Your task to perform on an android device: Go to ESPN.com Image 0: 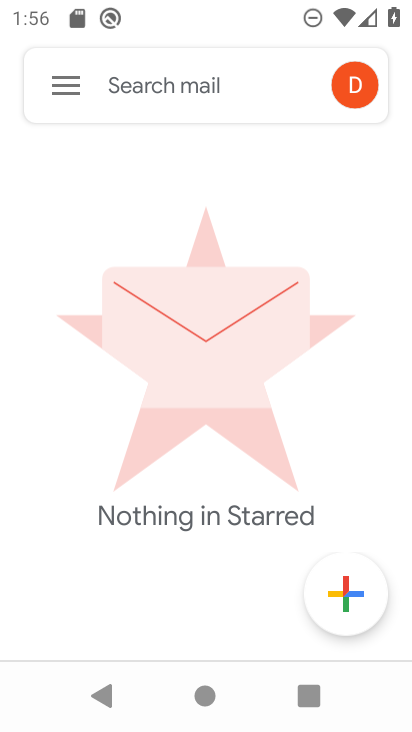
Step 0: press home button
Your task to perform on an android device: Go to ESPN.com Image 1: 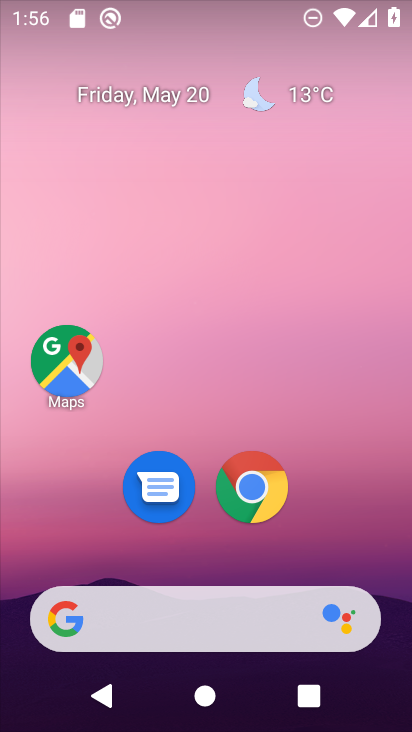
Step 1: click (249, 481)
Your task to perform on an android device: Go to ESPN.com Image 2: 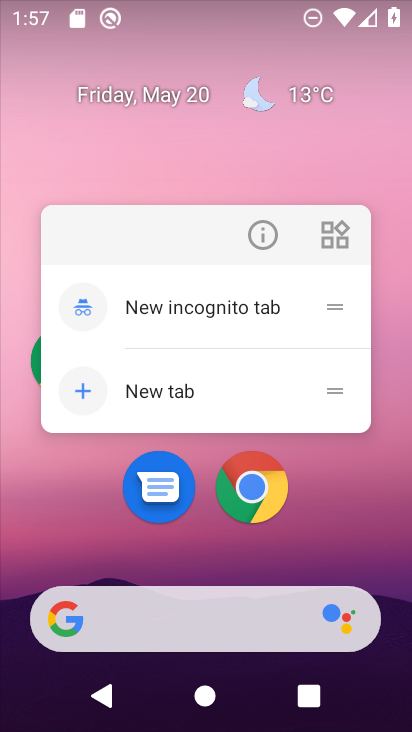
Step 2: click (249, 481)
Your task to perform on an android device: Go to ESPN.com Image 3: 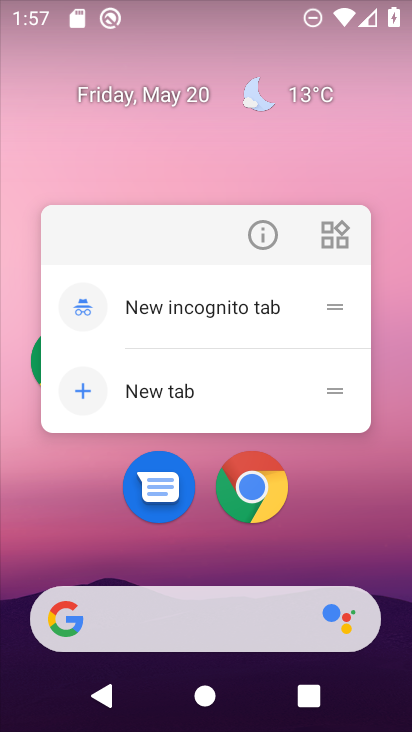
Step 3: click (249, 481)
Your task to perform on an android device: Go to ESPN.com Image 4: 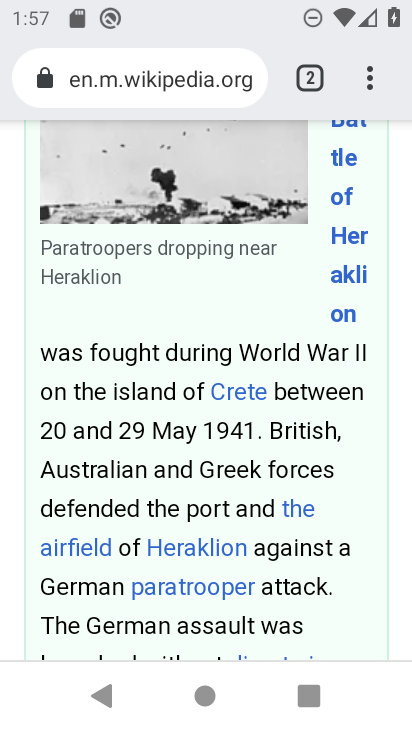
Step 4: click (306, 66)
Your task to perform on an android device: Go to ESPN.com Image 5: 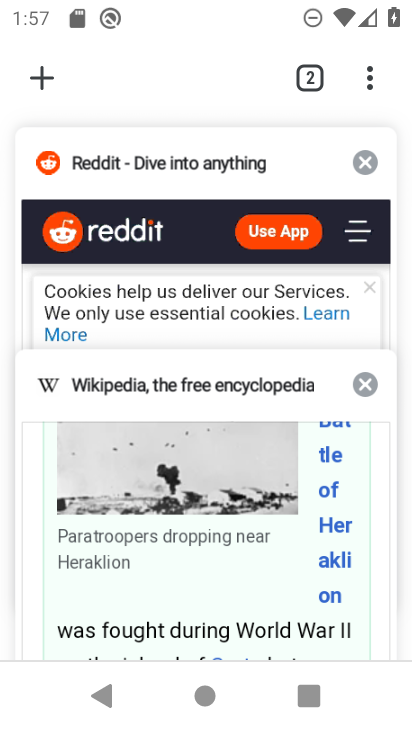
Step 5: click (362, 158)
Your task to perform on an android device: Go to ESPN.com Image 6: 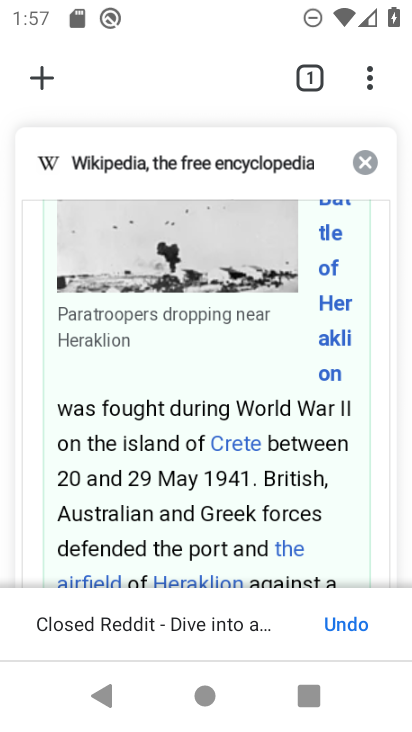
Step 6: click (362, 158)
Your task to perform on an android device: Go to ESPN.com Image 7: 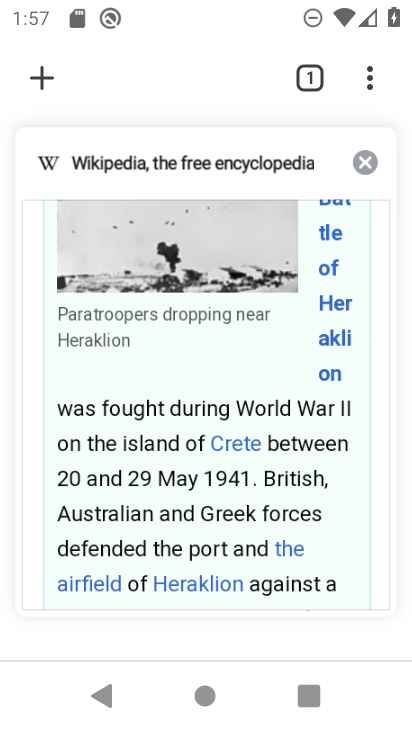
Step 7: click (48, 80)
Your task to perform on an android device: Go to ESPN.com Image 8: 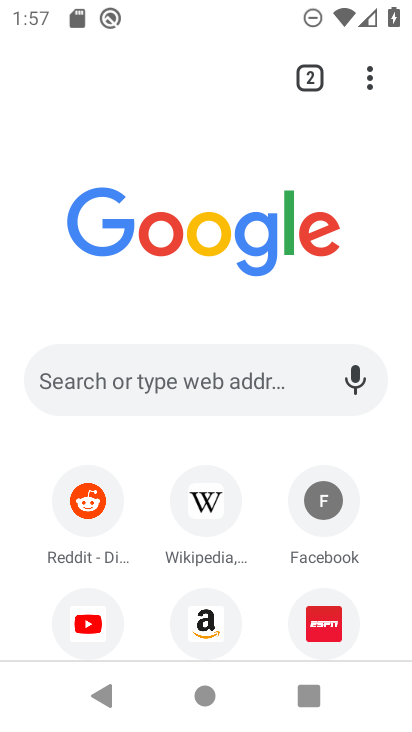
Step 8: click (328, 624)
Your task to perform on an android device: Go to ESPN.com Image 9: 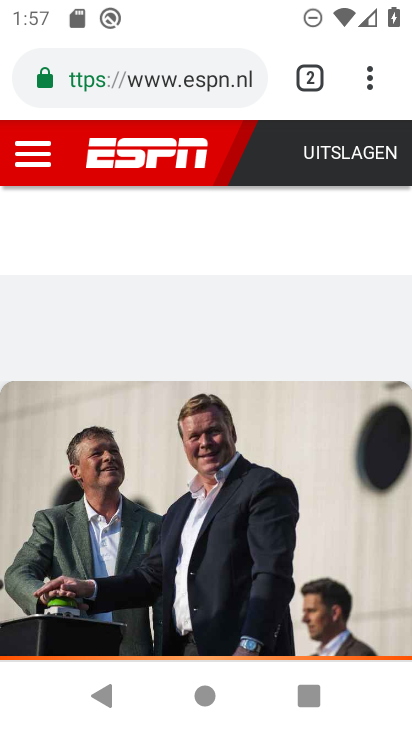
Step 9: drag from (234, 612) to (231, 167)
Your task to perform on an android device: Go to ESPN.com Image 10: 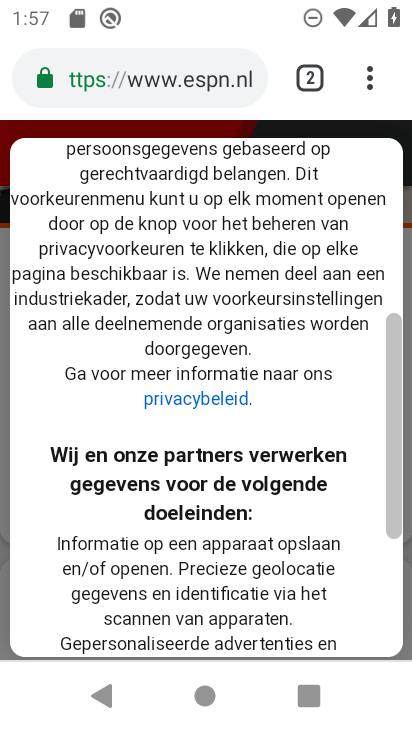
Step 10: drag from (300, 584) to (331, 190)
Your task to perform on an android device: Go to ESPN.com Image 11: 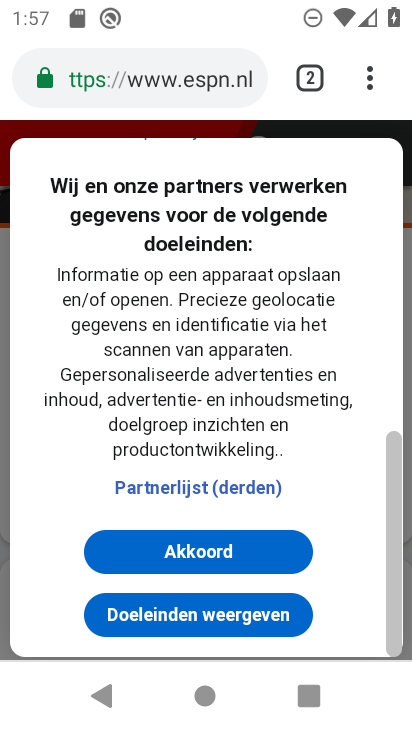
Step 11: click (201, 548)
Your task to perform on an android device: Go to ESPN.com Image 12: 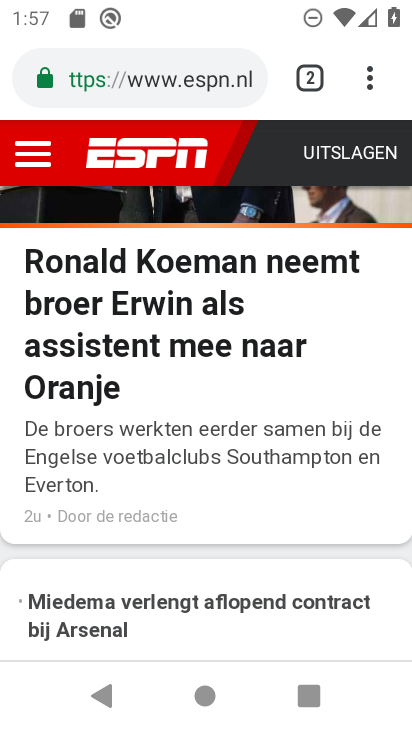
Step 12: task complete